Your task to perform on an android device: Go to Google maps Image 0: 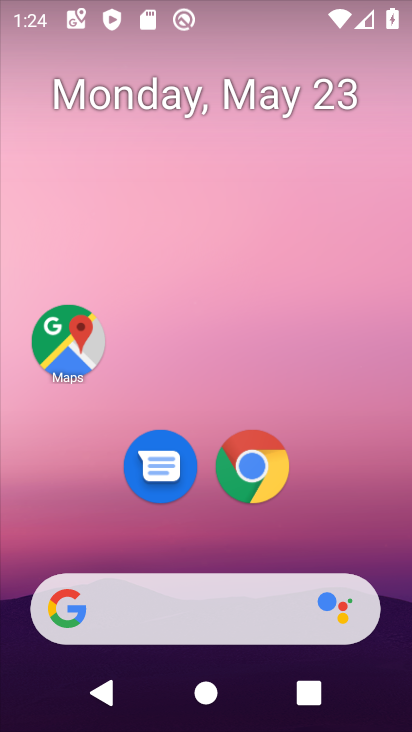
Step 0: click (66, 344)
Your task to perform on an android device: Go to Google maps Image 1: 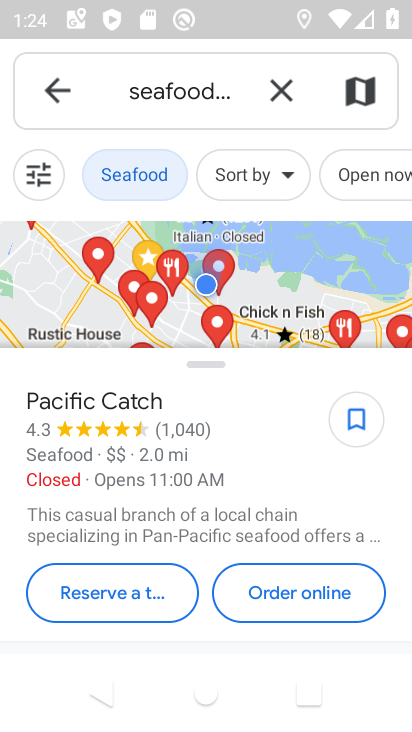
Step 1: task complete